Your task to perform on an android device: change the clock display to digital Image 0: 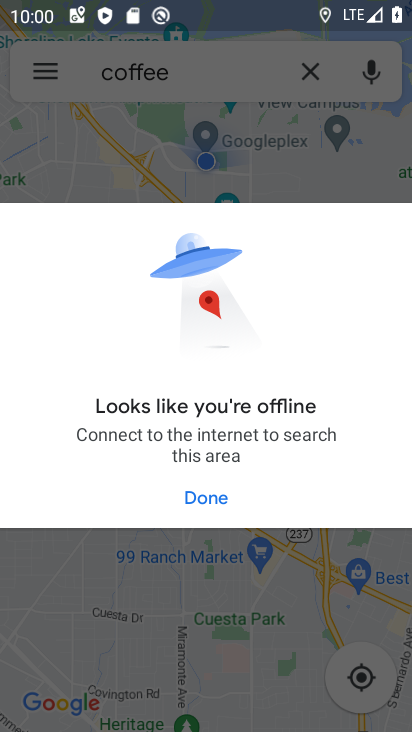
Step 0: press home button
Your task to perform on an android device: change the clock display to digital Image 1: 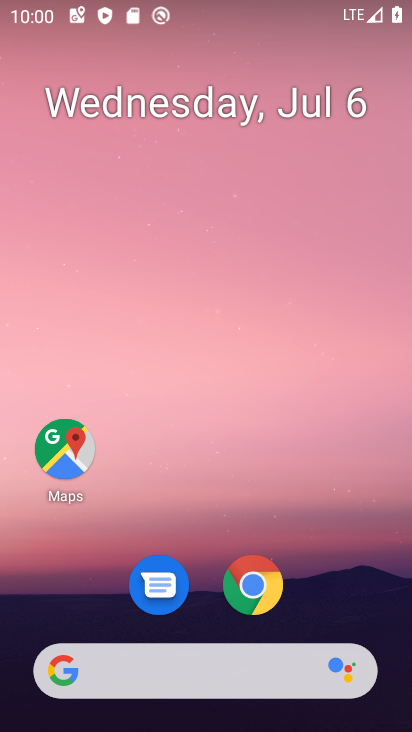
Step 1: drag from (212, 469) to (256, 25)
Your task to perform on an android device: change the clock display to digital Image 2: 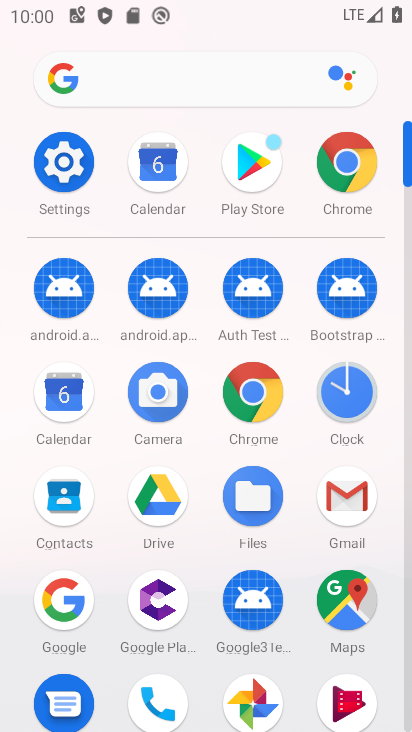
Step 2: drag from (209, 527) to (227, 267)
Your task to perform on an android device: change the clock display to digital Image 3: 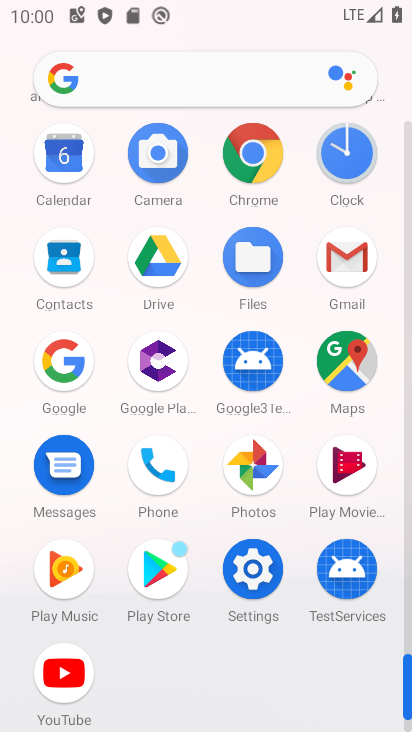
Step 3: click (344, 145)
Your task to perform on an android device: change the clock display to digital Image 4: 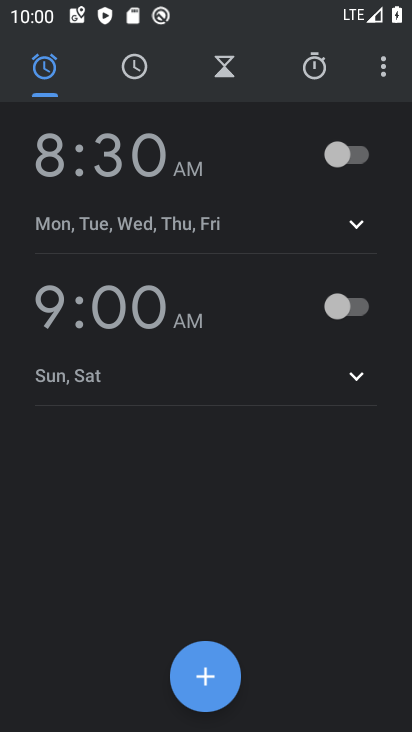
Step 4: click (142, 66)
Your task to perform on an android device: change the clock display to digital Image 5: 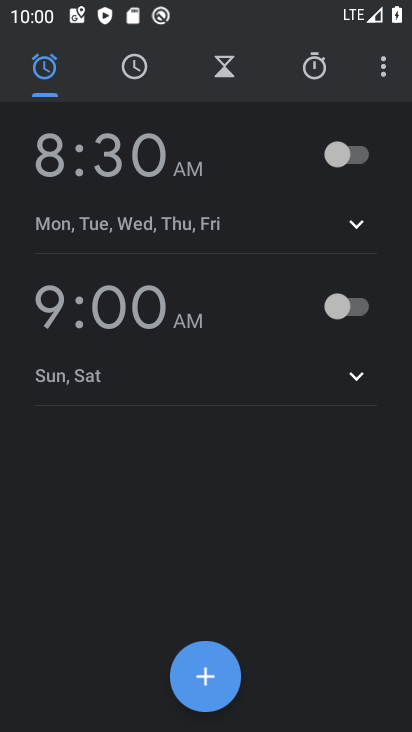
Step 5: click (132, 72)
Your task to perform on an android device: change the clock display to digital Image 6: 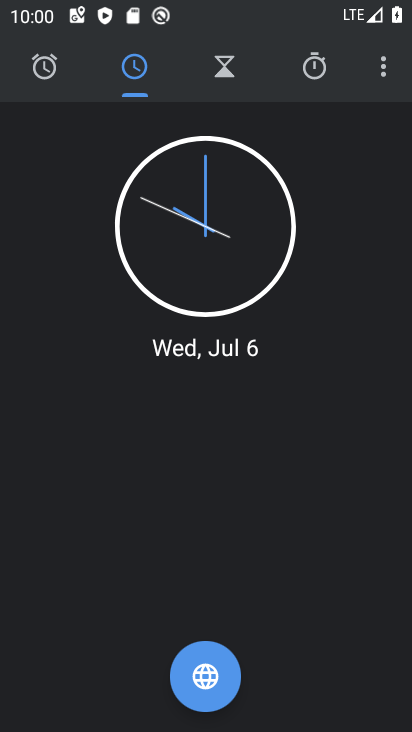
Step 6: click (379, 68)
Your task to perform on an android device: change the clock display to digital Image 7: 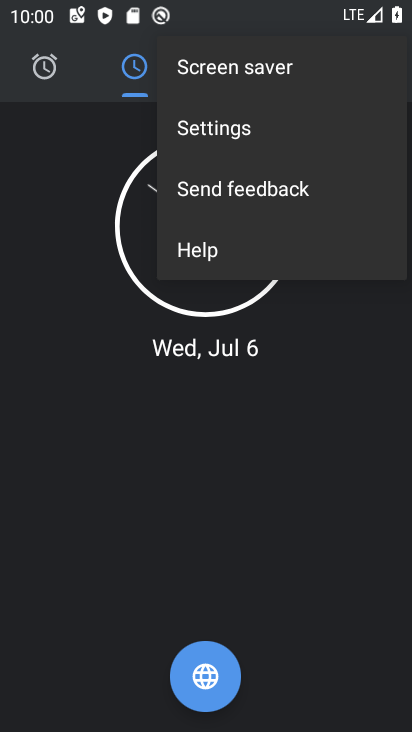
Step 7: click (296, 131)
Your task to perform on an android device: change the clock display to digital Image 8: 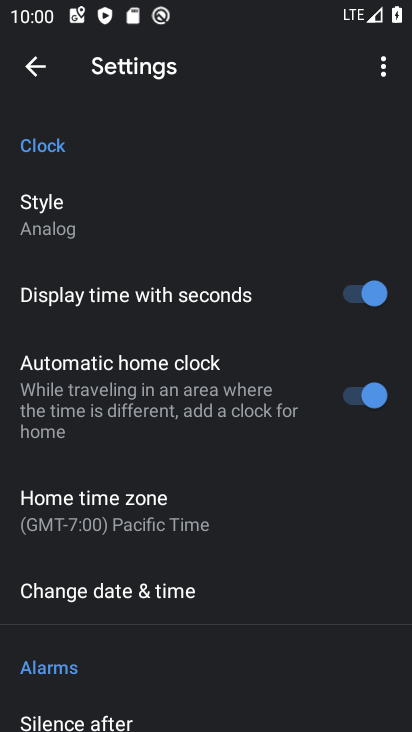
Step 8: click (63, 216)
Your task to perform on an android device: change the clock display to digital Image 9: 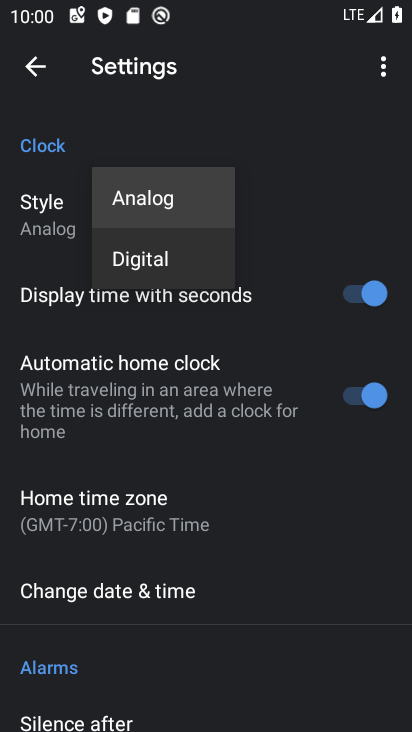
Step 9: click (126, 253)
Your task to perform on an android device: change the clock display to digital Image 10: 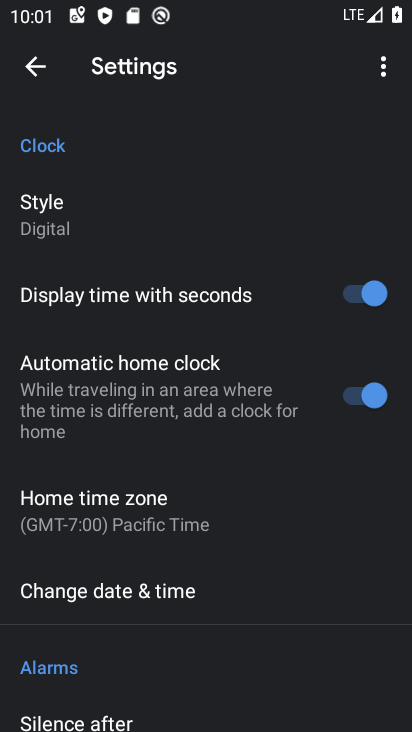
Step 10: click (37, 70)
Your task to perform on an android device: change the clock display to digital Image 11: 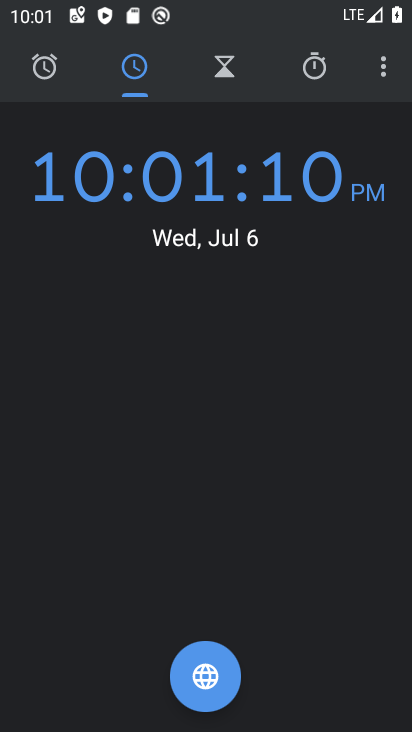
Step 11: task complete